Your task to perform on an android device: change keyboard looks Image 0: 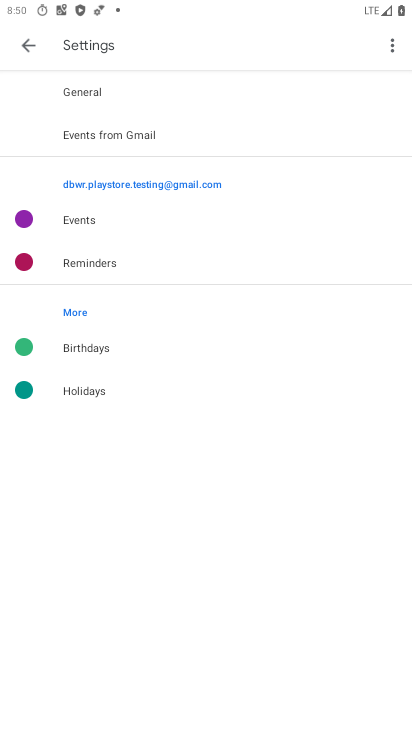
Step 0: press home button
Your task to perform on an android device: change keyboard looks Image 1: 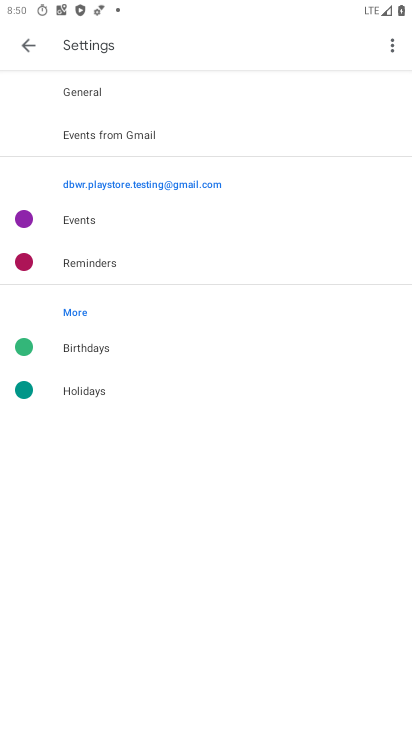
Step 1: press home button
Your task to perform on an android device: change keyboard looks Image 2: 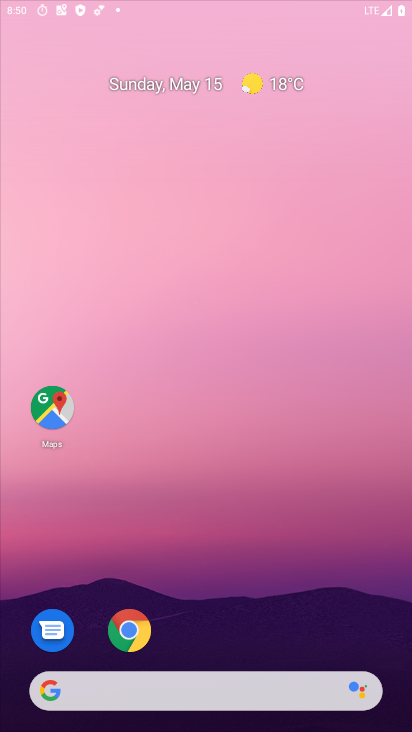
Step 2: press home button
Your task to perform on an android device: change keyboard looks Image 3: 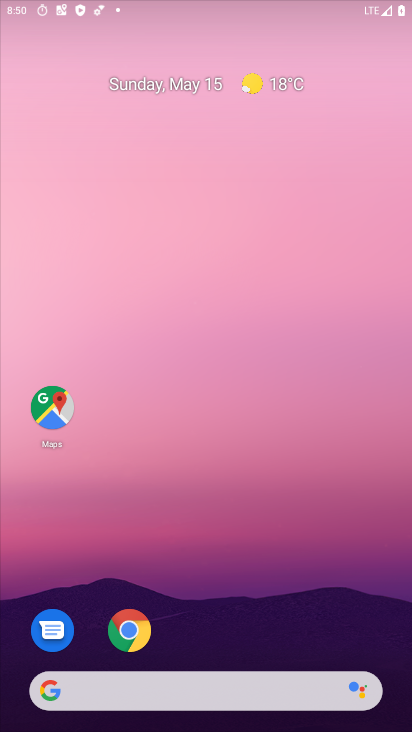
Step 3: press home button
Your task to perform on an android device: change keyboard looks Image 4: 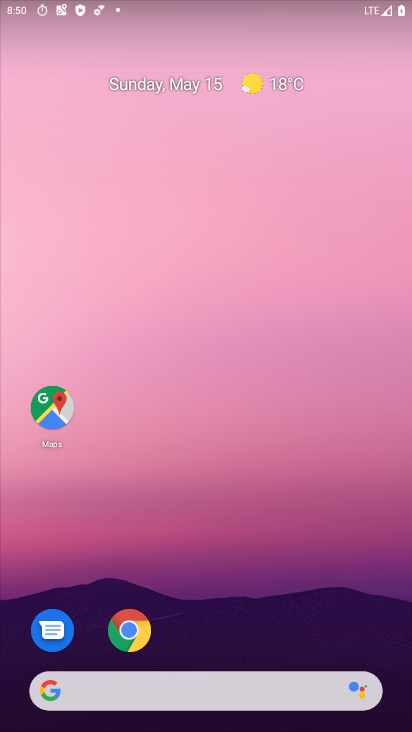
Step 4: drag from (214, 537) to (277, 187)
Your task to perform on an android device: change keyboard looks Image 5: 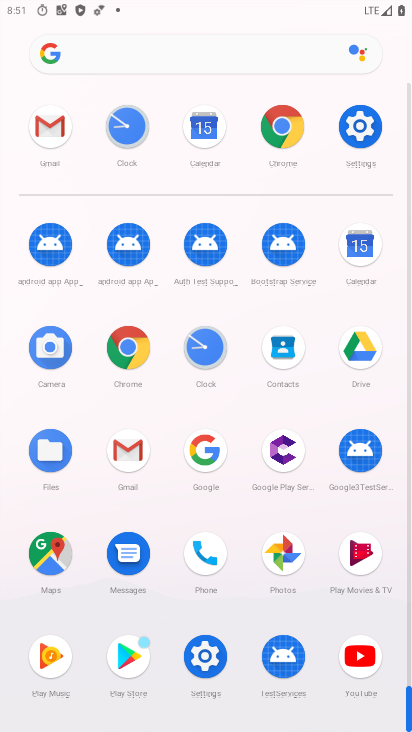
Step 5: click (364, 127)
Your task to perform on an android device: change keyboard looks Image 6: 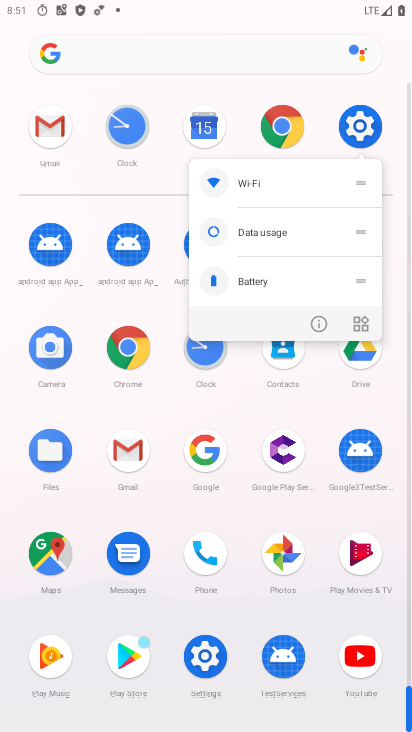
Step 6: click (323, 330)
Your task to perform on an android device: change keyboard looks Image 7: 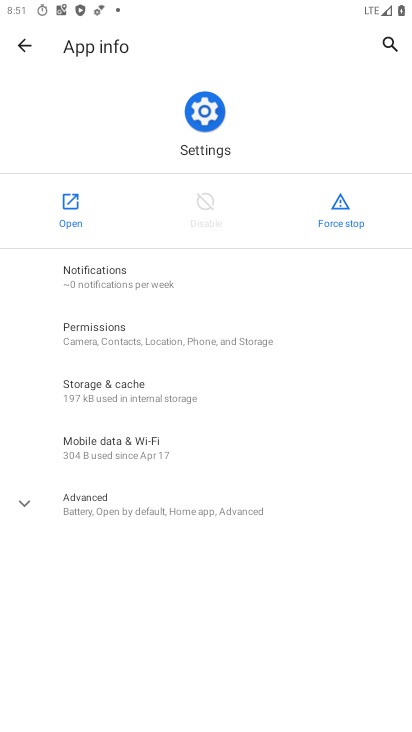
Step 7: click (68, 195)
Your task to perform on an android device: change keyboard looks Image 8: 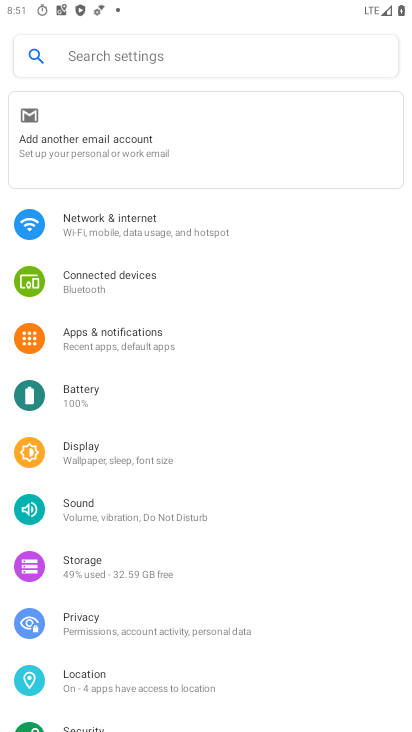
Step 8: drag from (147, 572) to (326, 191)
Your task to perform on an android device: change keyboard looks Image 9: 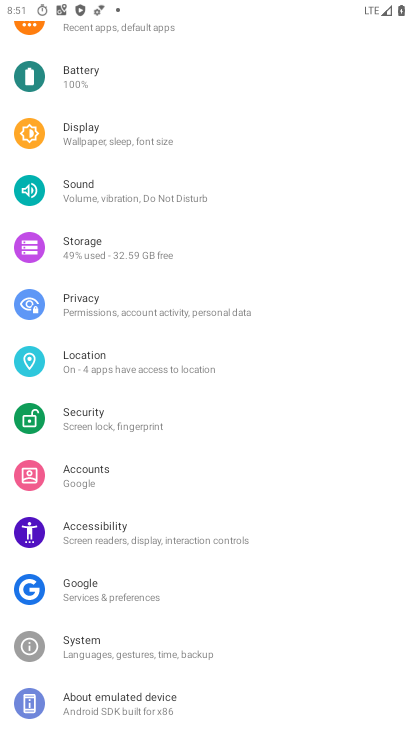
Step 9: click (138, 702)
Your task to perform on an android device: change keyboard looks Image 10: 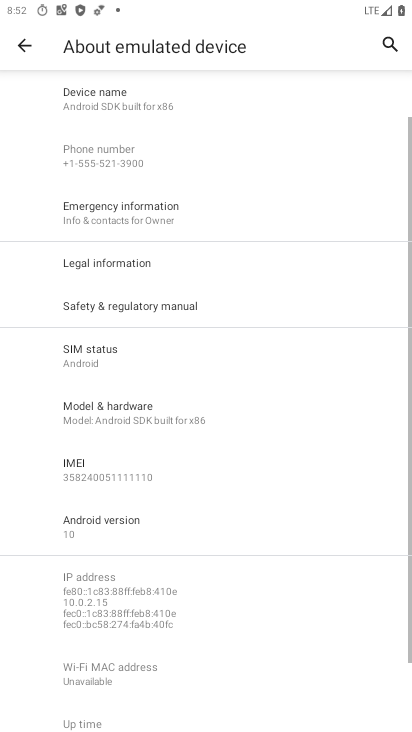
Step 10: click (26, 47)
Your task to perform on an android device: change keyboard looks Image 11: 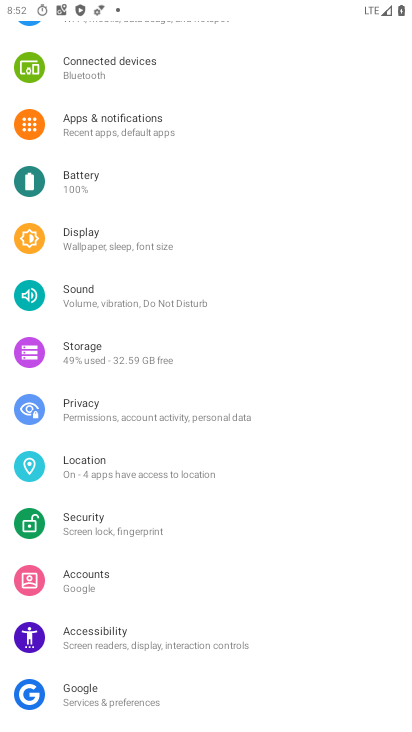
Step 11: drag from (159, 692) to (209, 307)
Your task to perform on an android device: change keyboard looks Image 12: 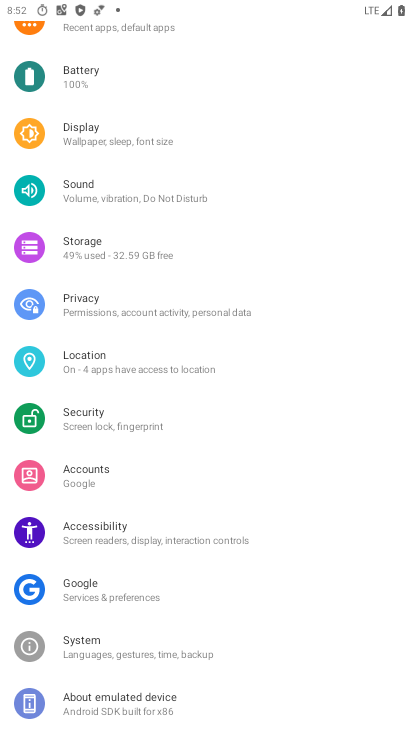
Step 12: click (129, 653)
Your task to perform on an android device: change keyboard looks Image 13: 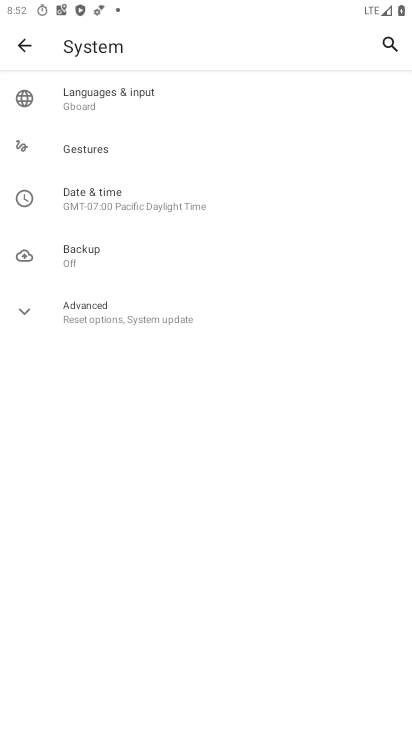
Step 13: click (145, 102)
Your task to perform on an android device: change keyboard looks Image 14: 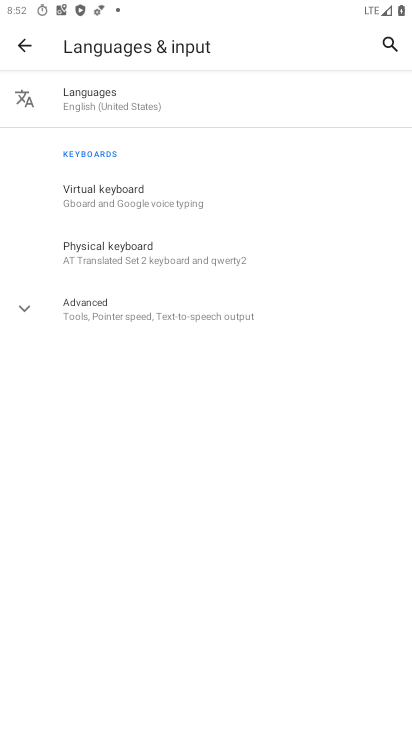
Step 14: click (138, 200)
Your task to perform on an android device: change keyboard looks Image 15: 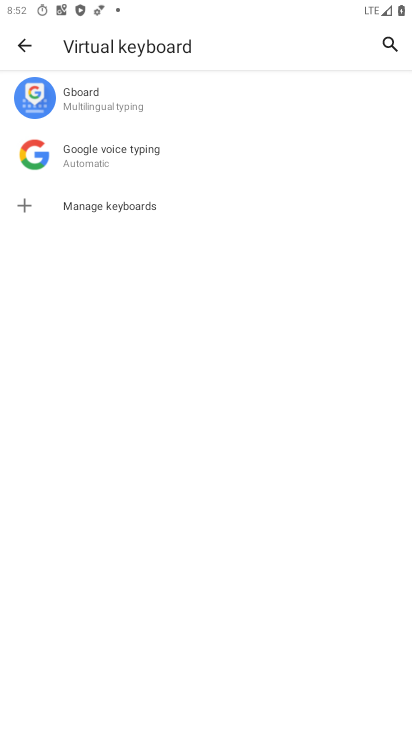
Step 15: click (158, 109)
Your task to perform on an android device: change keyboard looks Image 16: 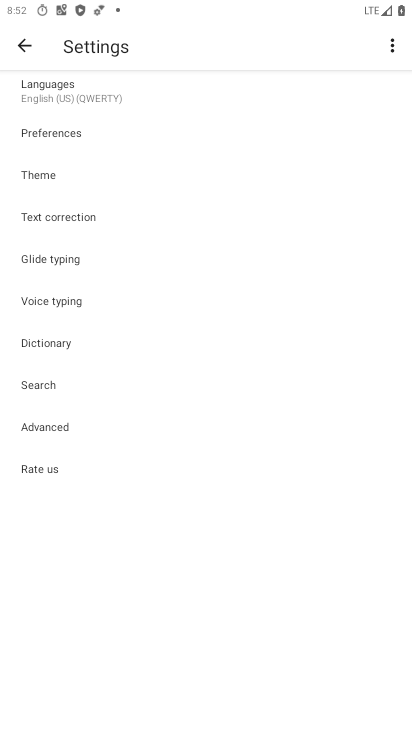
Step 16: click (39, 171)
Your task to perform on an android device: change keyboard looks Image 17: 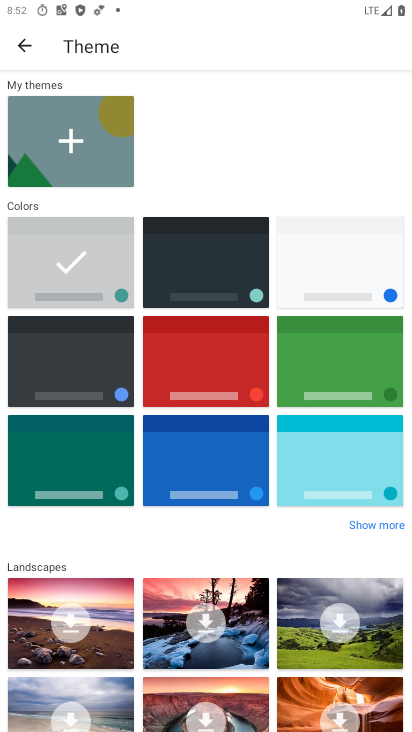
Step 17: click (181, 281)
Your task to perform on an android device: change keyboard looks Image 18: 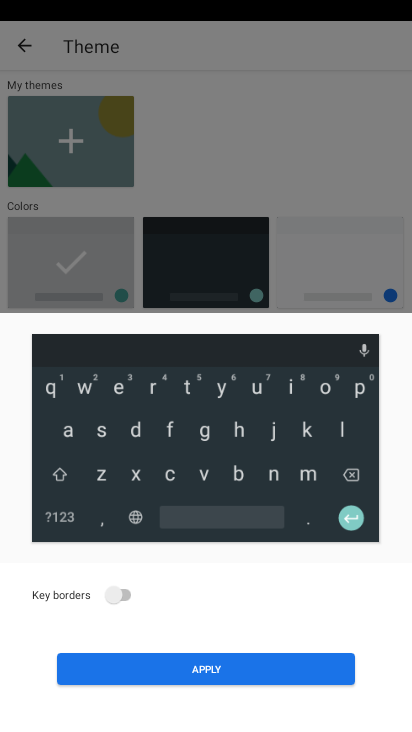
Step 18: click (191, 673)
Your task to perform on an android device: change keyboard looks Image 19: 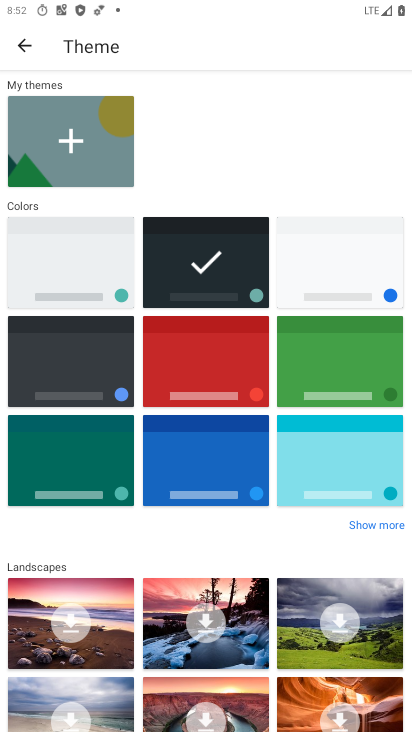
Step 19: task complete